Your task to perform on an android device: open chrome and create a bookmark for the current page Image 0: 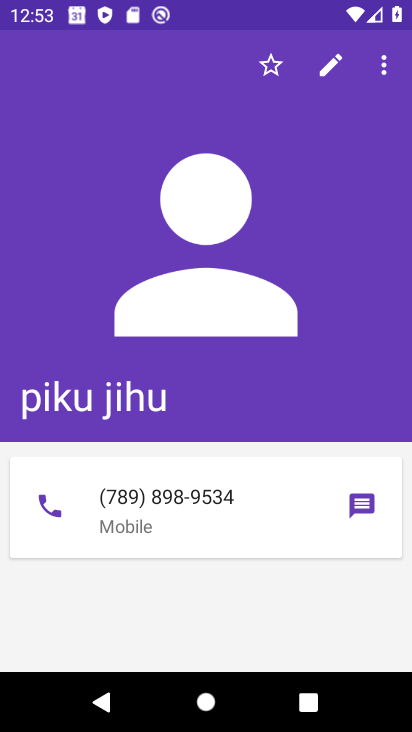
Step 0: press home button
Your task to perform on an android device: open chrome and create a bookmark for the current page Image 1: 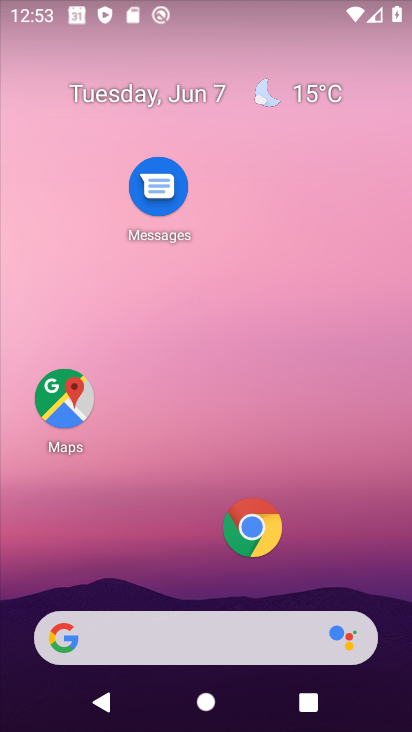
Step 1: click (247, 534)
Your task to perform on an android device: open chrome and create a bookmark for the current page Image 2: 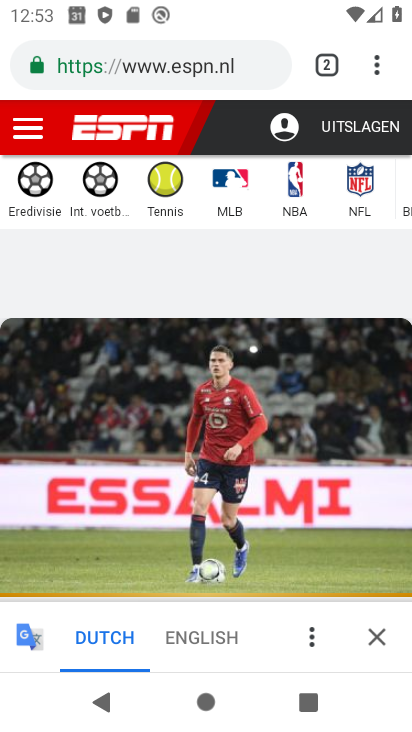
Step 2: click (373, 63)
Your task to perform on an android device: open chrome and create a bookmark for the current page Image 3: 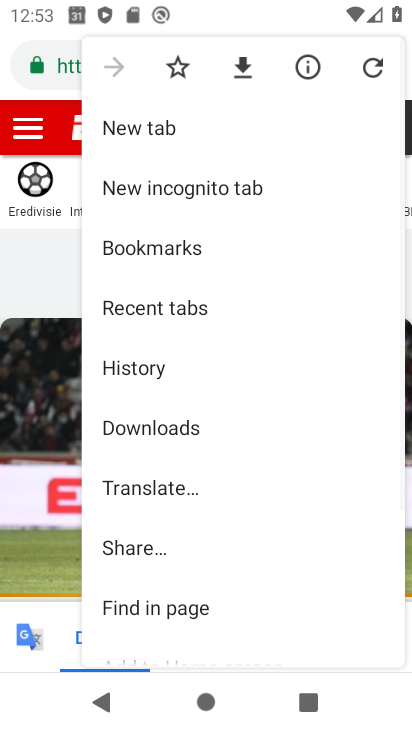
Step 3: click (179, 66)
Your task to perform on an android device: open chrome and create a bookmark for the current page Image 4: 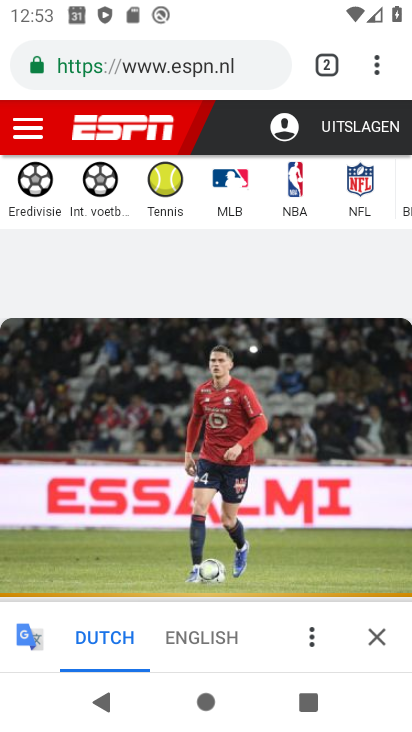
Step 4: task complete